Your task to perform on an android device: Do I have any events this weekend? Image 0: 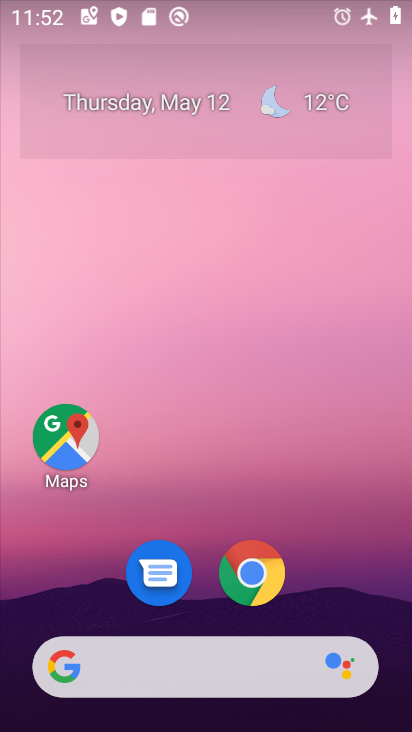
Step 0: click (205, 659)
Your task to perform on an android device: Do I have any events this weekend? Image 1: 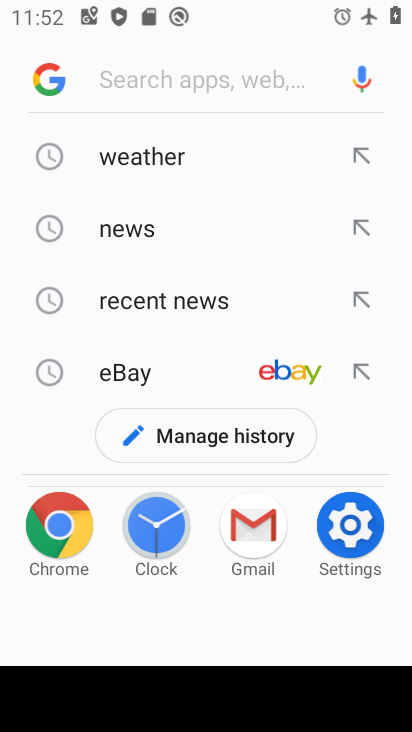
Step 1: type "Do I have any events this weekend?"
Your task to perform on an android device: Do I have any events this weekend? Image 2: 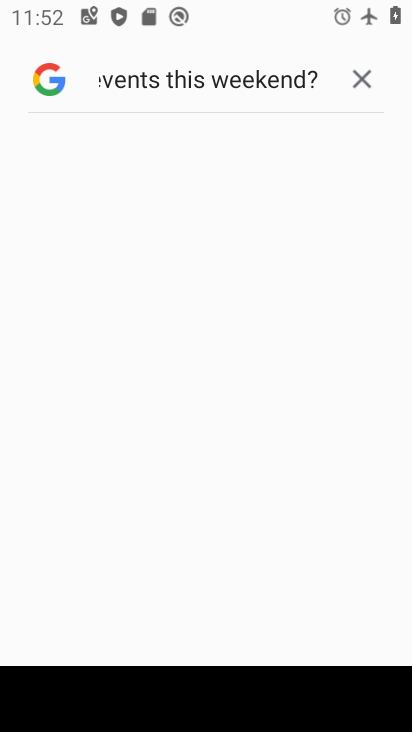
Step 2: task complete